Your task to perform on an android device: turn on airplane mode Image 0: 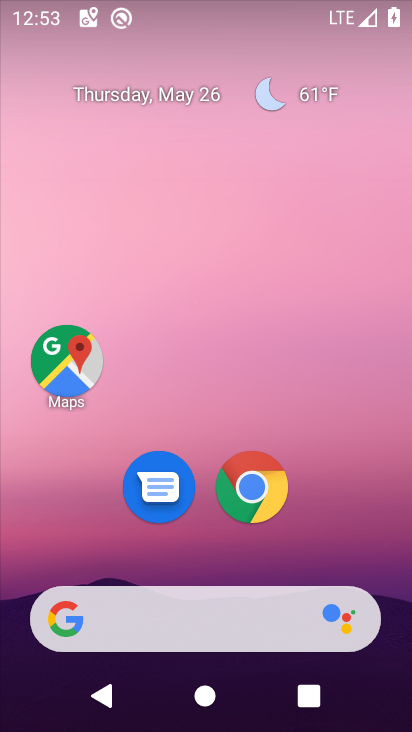
Step 0: drag from (264, 668) to (152, 184)
Your task to perform on an android device: turn on airplane mode Image 1: 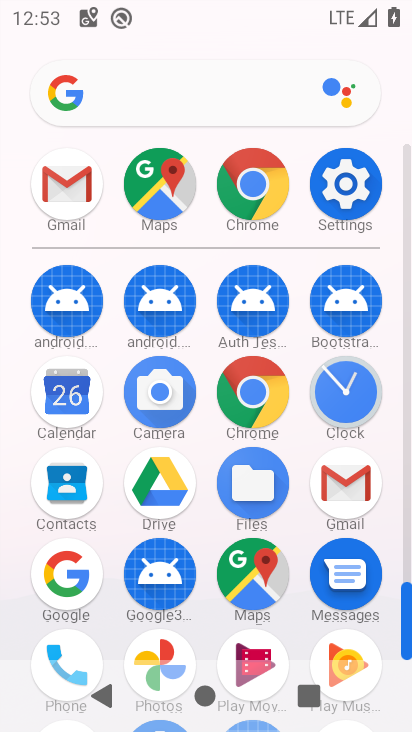
Step 1: drag from (252, 670) to (160, 252)
Your task to perform on an android device: turn on airplane mode Image 2: 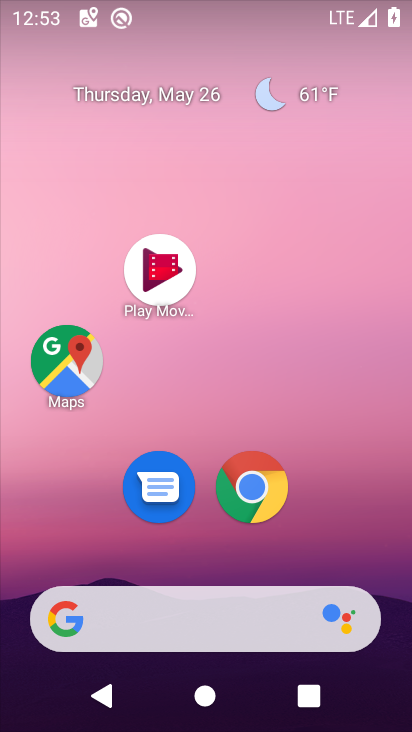
Step 2: click (334, 184)
Your task to perform on an android device: turn on airplane mode Image 3: 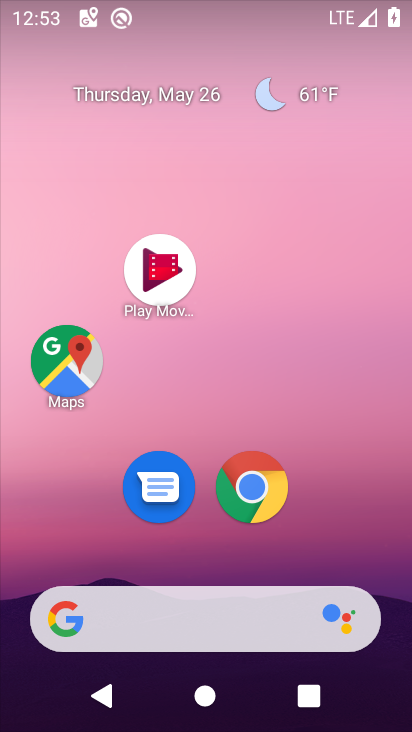
Step 3: drag from (233, 443) to (174, 113)
Your task to perform on an android device: turn on airplane mode Image 4: 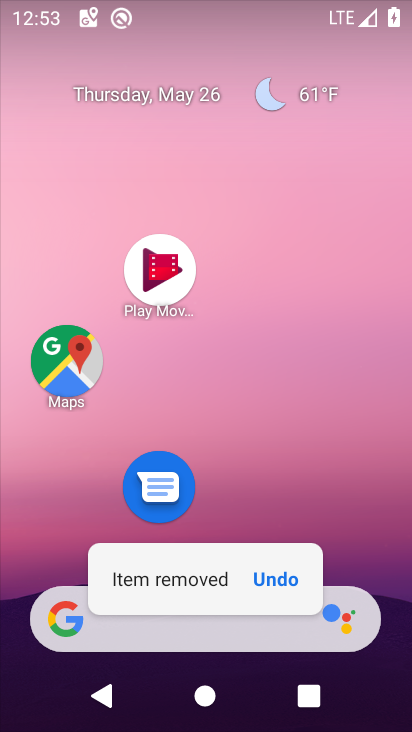
Step 4: drag from (253, 615) to (176, 53)
Your task to perform on an android device: turn on airplane mode Image 5: 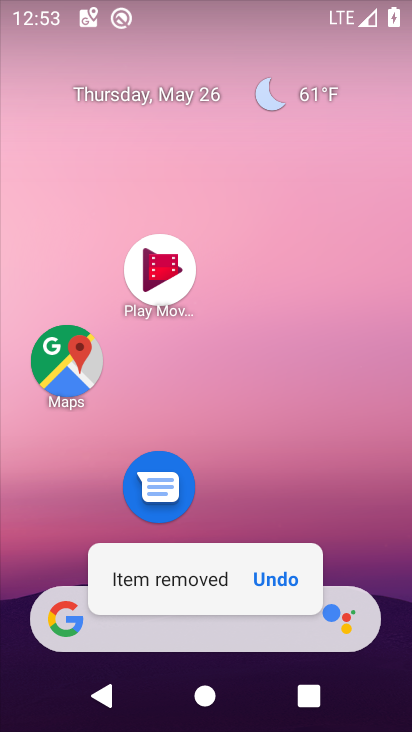
Step 5: drag from (288, 594) to (242, 156)
Your task to perform on an android device: turn on airplane mode Image 6: 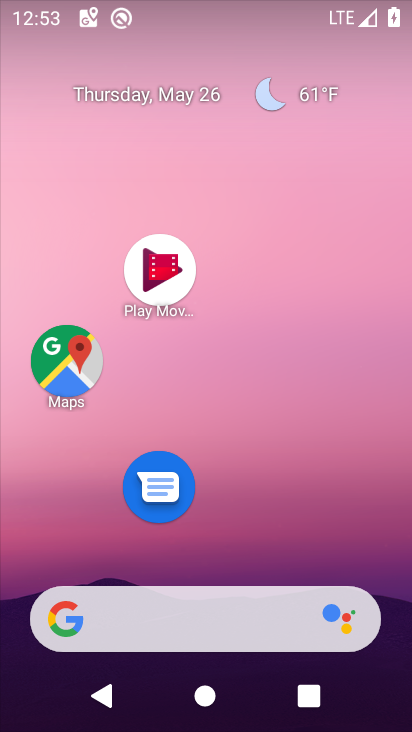
Step 6: drag from (255, 635) to (198, 170)
Your task to perform on an android device: turn on airplane mode Image 7: 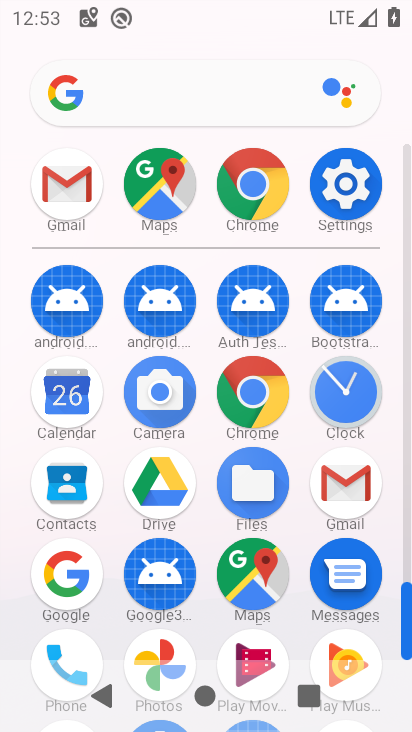
Step 7: drag from (276, 539) to (246, 107)
Your task to perform on an android device: turn on airplane mode Image 8: 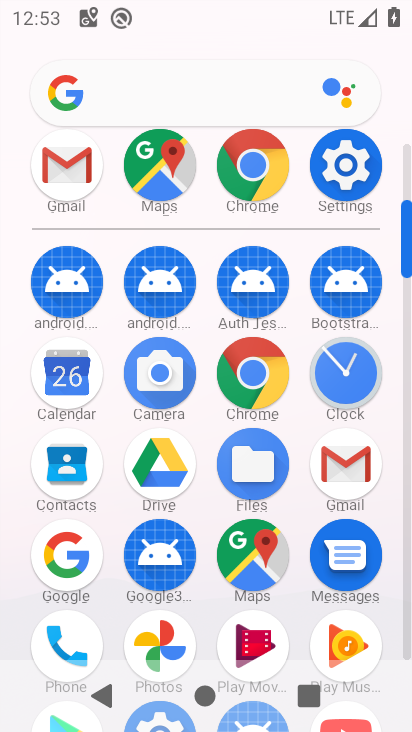
Step 8: click (286, 166)
Your task to perform on an android device: turn on airplane mode Image 9: 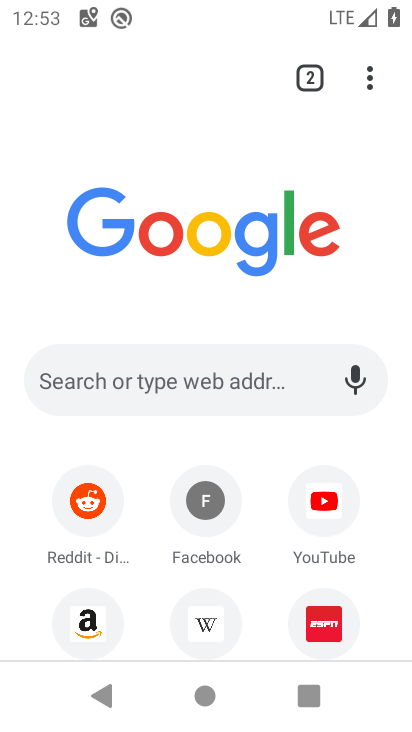
Step 9: click (335, 187)
Your task to perform on an android device: turn on airplane mode Image 10: 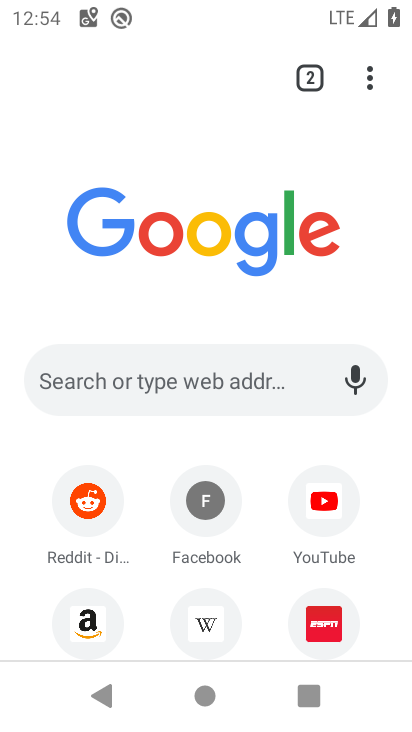
Step 10: click (370, 80)
Your task to perform on an android device: turn on airplane mode Image 11: 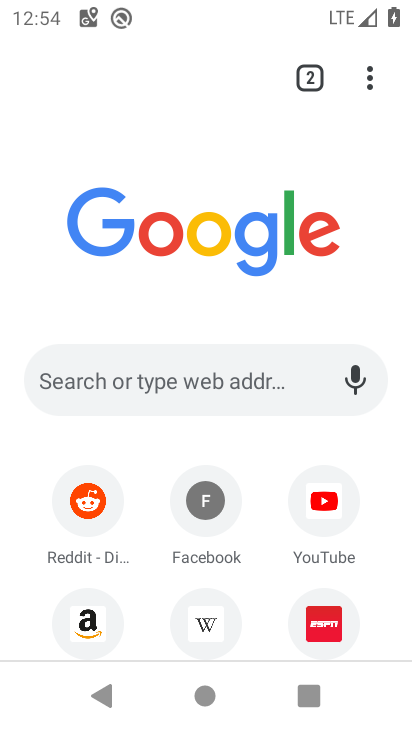
Step 11: press back button
Your task to perform on an android device: turn on airplane mode Image 12: 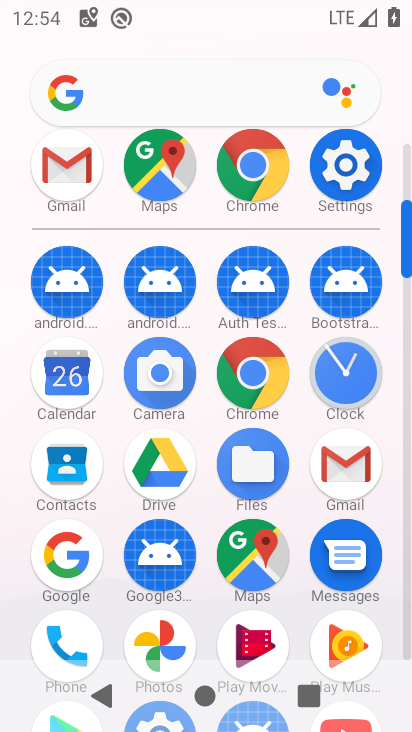
Step 12: click (257, 176)
Your task to perform on an android device: turn on airplane mode Image 13: 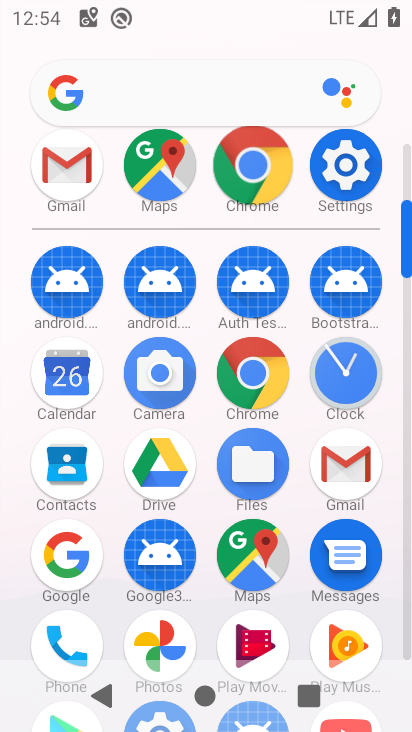
Step 13: click (257, 176)
Your task to perform on an android device: turn on airplane mode Image 14: 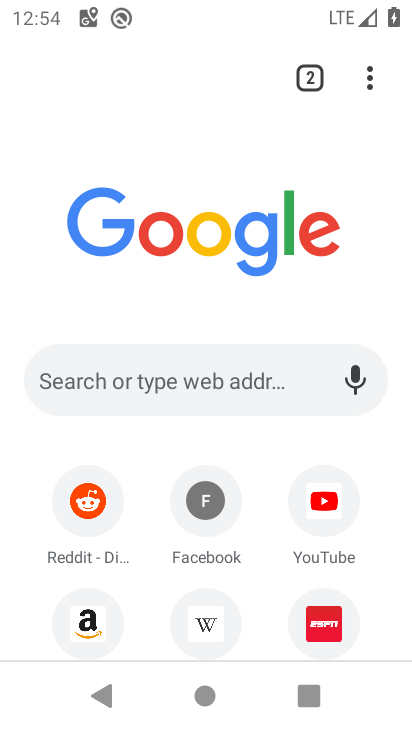
Step 14: press back button
Your task to perform on an android device: turn on airplane mode Image 15: 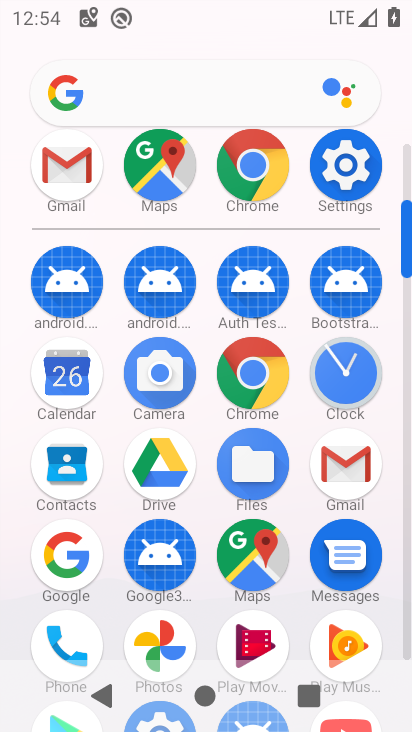
Step 15: click (351, 181)
Your task to perform on an android device: turn on airplane mode Image 16: 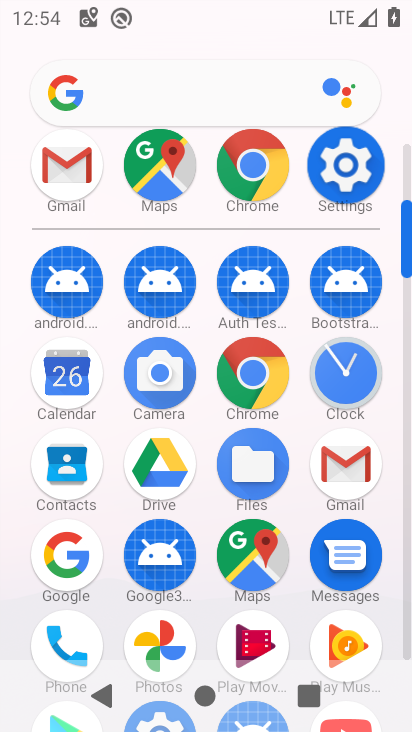
Step 16: click (359, 184)
Your task to perform on an android device: turn on airplane mode Image 17: 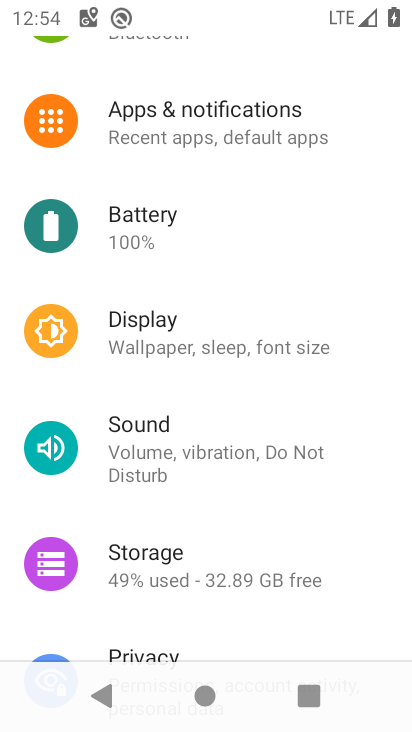
Step 17: drag from (172, 124) to (270, 682)
Your task to perform on an android device: turn on airplane mode Image 18: 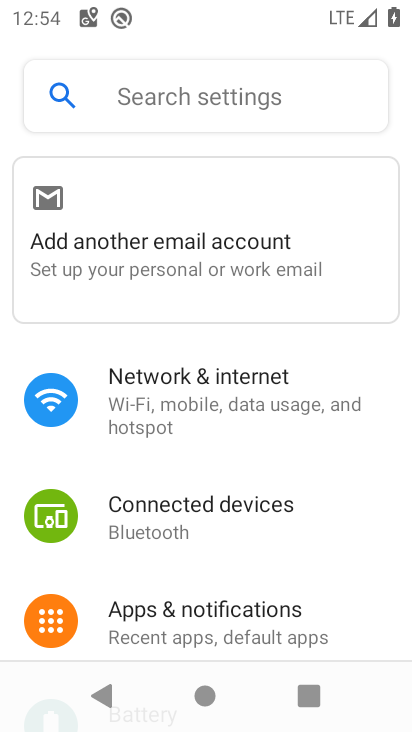
Step 18: click (202, 392)
Your task to perform on an android device: turn on airplane mode Image 19: 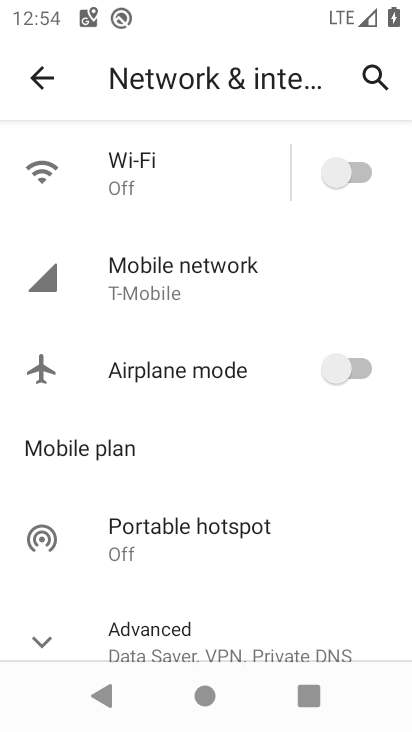
Step 19: click (348, 366)
Your task to perform on an android device: turn on airplane mode Image 20: 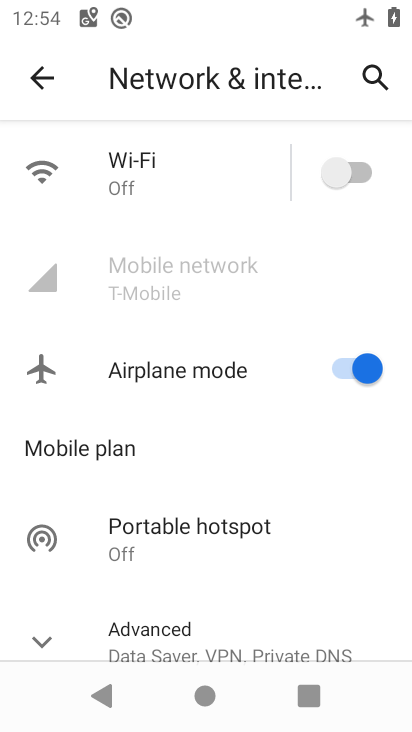
Step 20: task complete